Your task to perform on an android device: turn notification dots on Image 0: 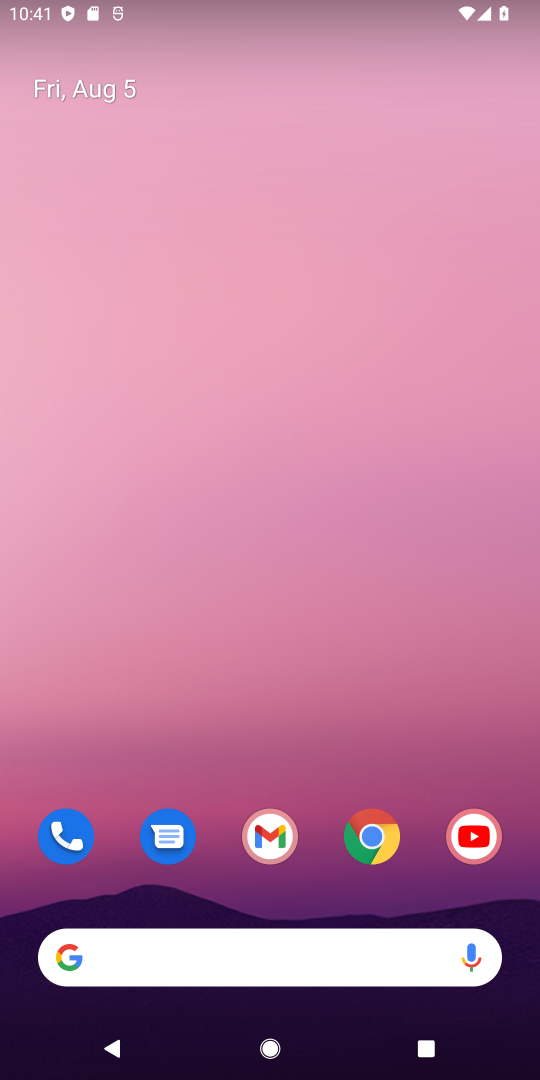
Step 0: drag from (324, 859) to (380, 159)
Your task to perform on an android device: turn notification dots on Image 1: 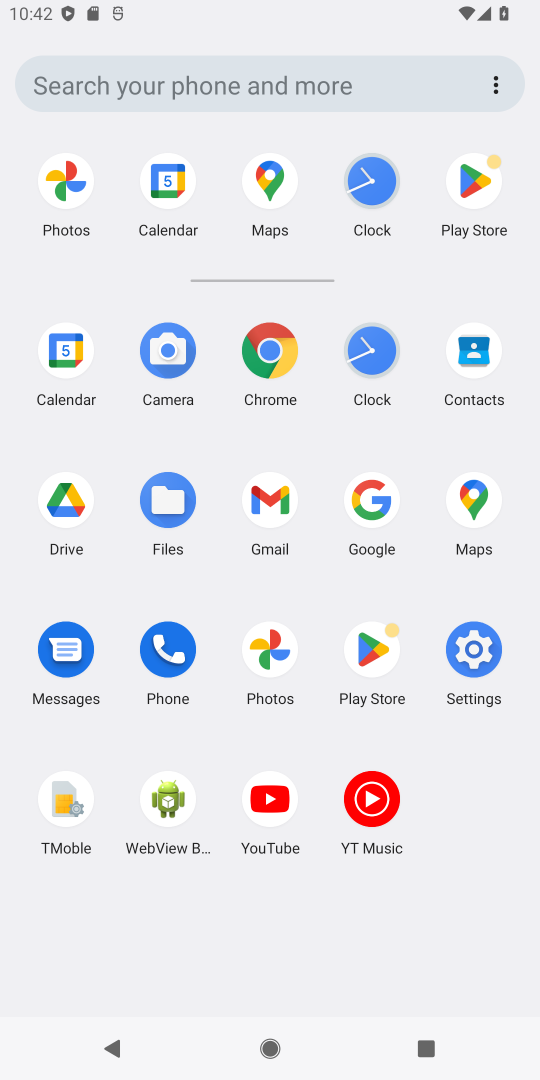
Step 1: click (479, 640)
Your task to perform on an android device: turn notification dots on Image 2: 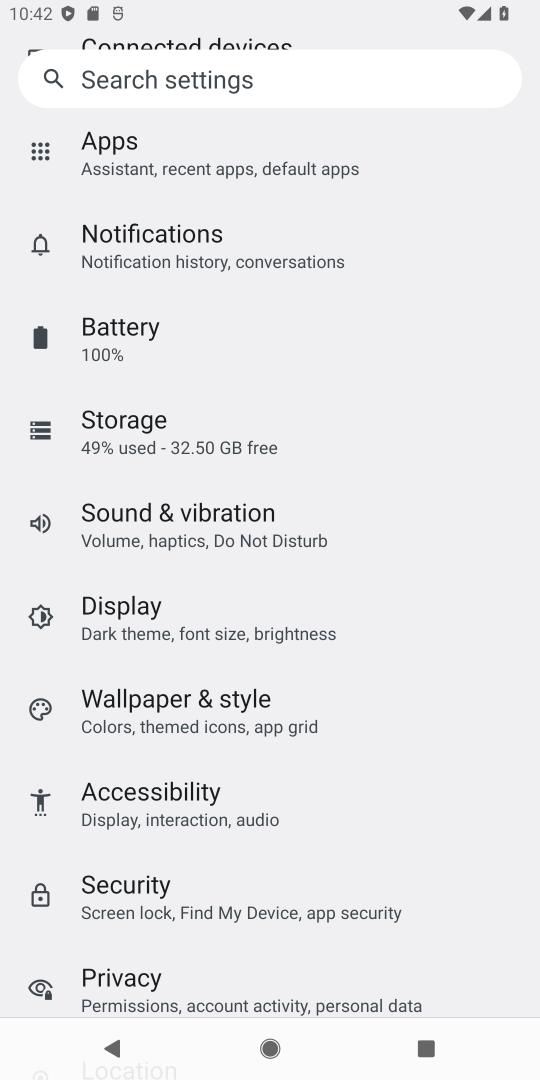
Step 2: click (159, 252)
Your task to perform on an android device: turn notification dots on Image 3: 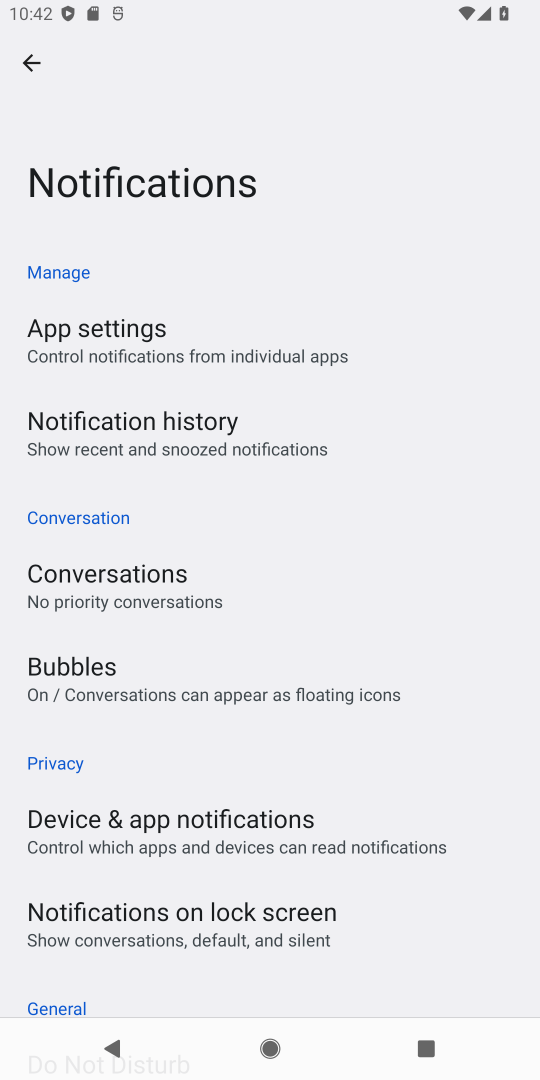
Step 3: drag from (245, 741) to (286, 204)
Your task to perform on an android device: turn notification dots on Image 4: 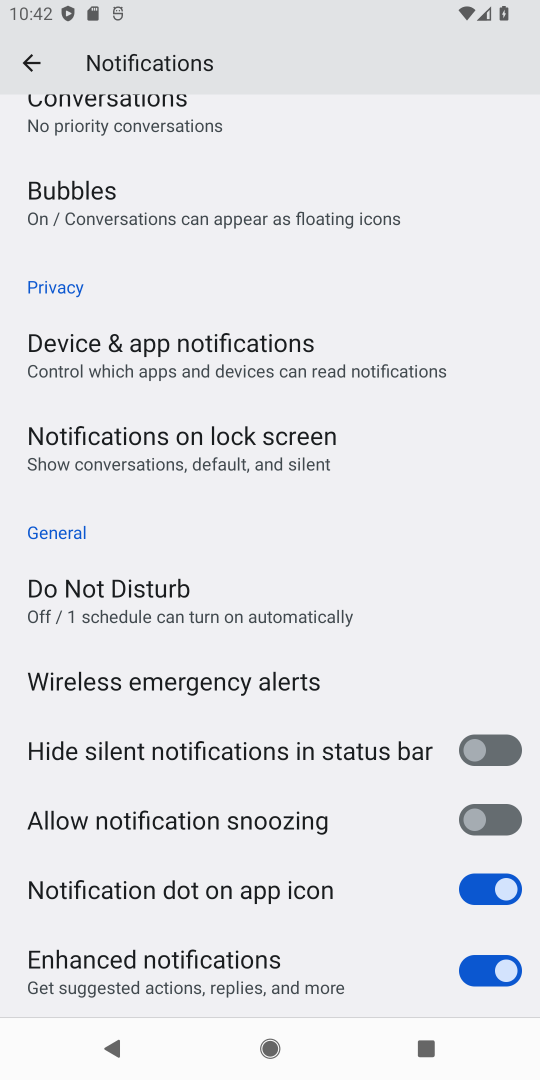
Step 4: click (192, 332)
Your task to perform on an android device: turn notification dots on Image 5: 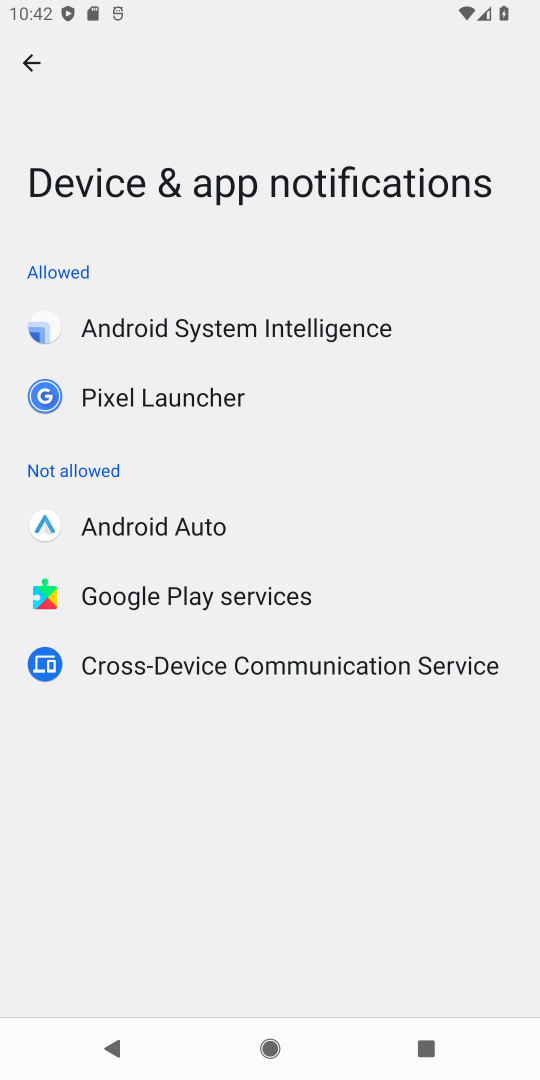
Step 5: click (23, 51)
Your task to perform on an android device: turn notification dots on Image 6: 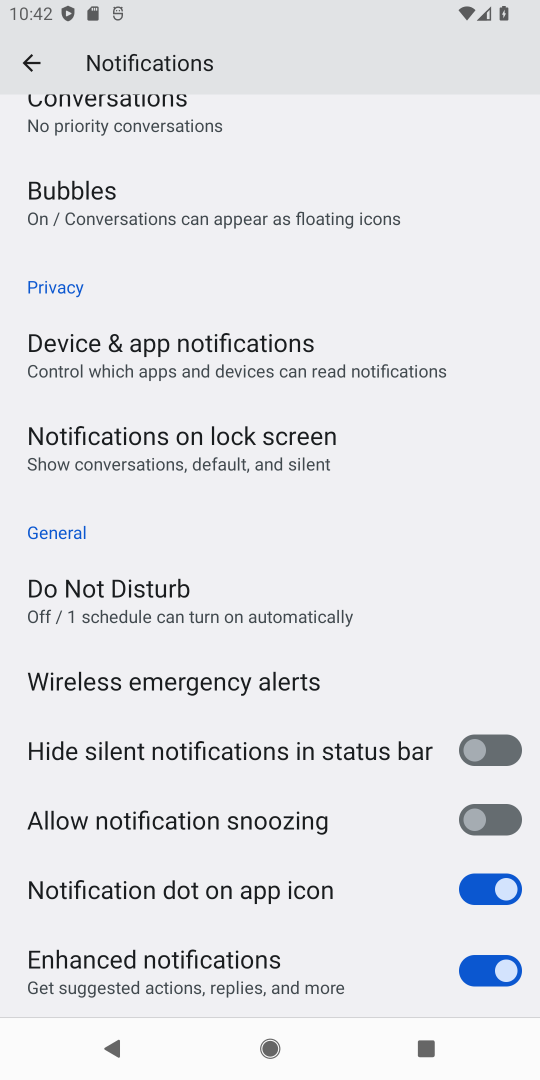
Step 6: task complete